Your task to perform on an android device: turn off notifications in google photos Image 0: 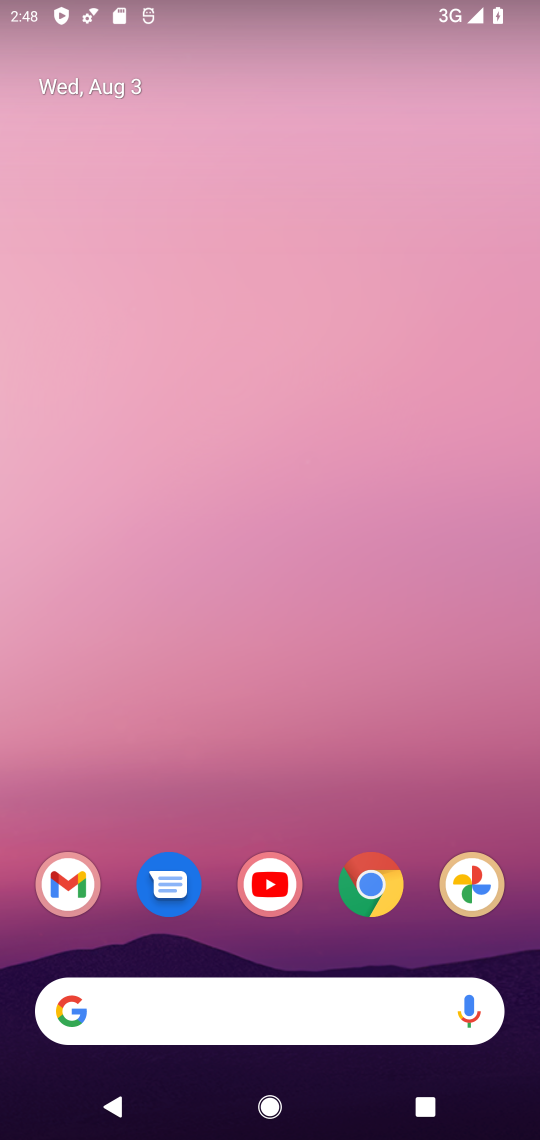
Step 0: click (458, 899)
Your task to perform on an android device: turn off notifications in google photos Image 1: 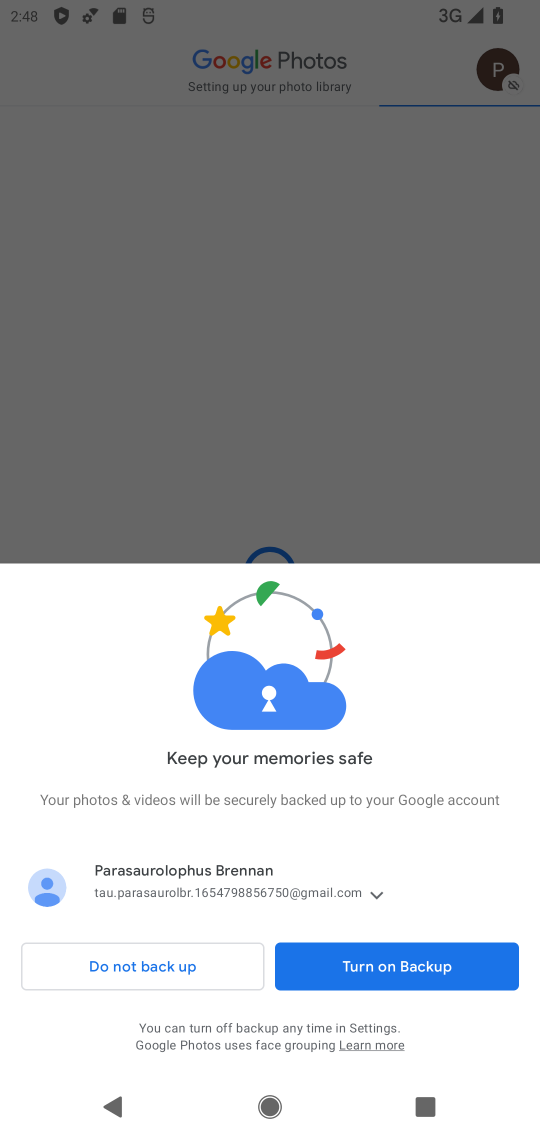
Step 1: click (304, 979)
Your task to perform on an android device: turn off notifications in google photos Image 2: 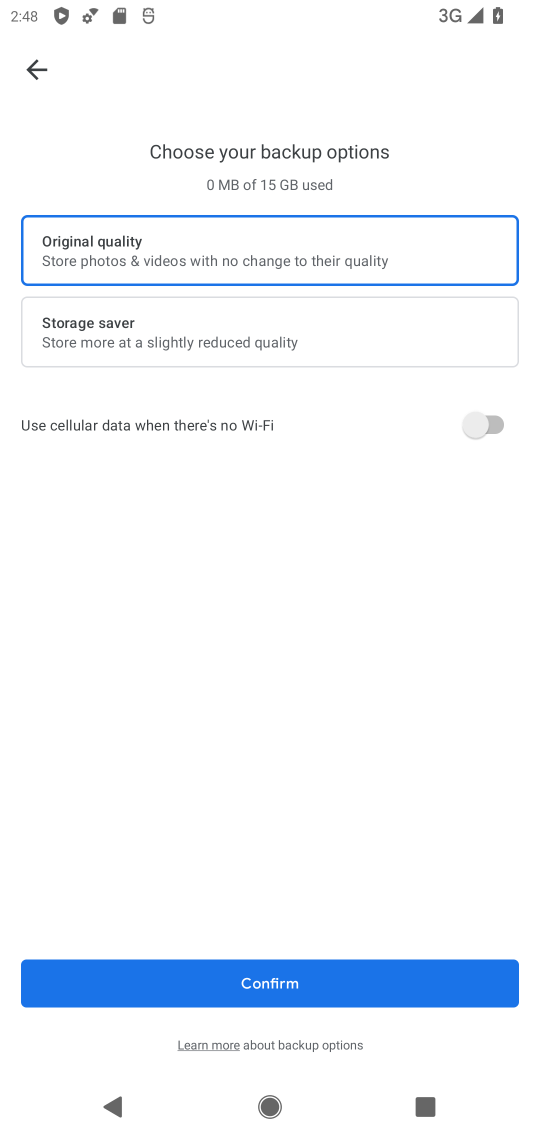
Step 2: click (304, 979)
Your task to perform on an android device: turn off notifications in google photos Image 3: 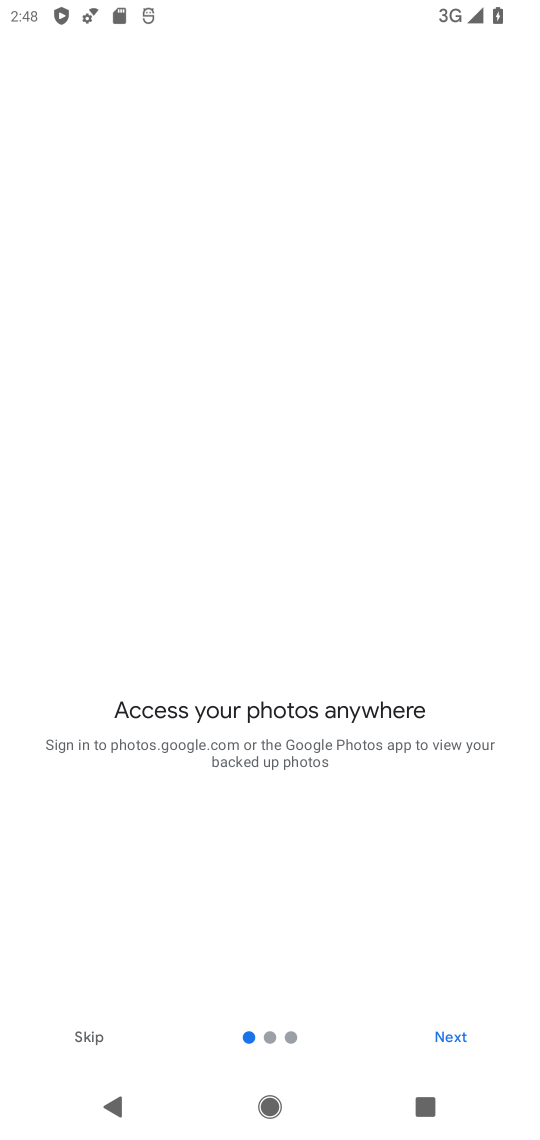
Step 3: click (304, 979)
Your task to perform on an android device: turn off notifications in google photos Image 4: 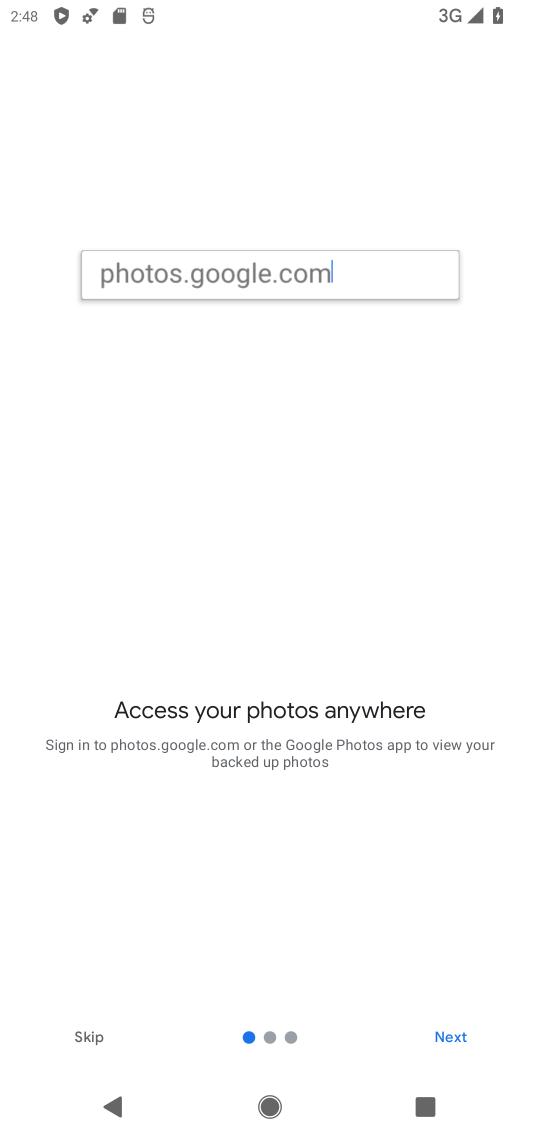
Step 4: click (448, 1048)
Your task to perform on an android device: turn off notifications in google photos Image 5: 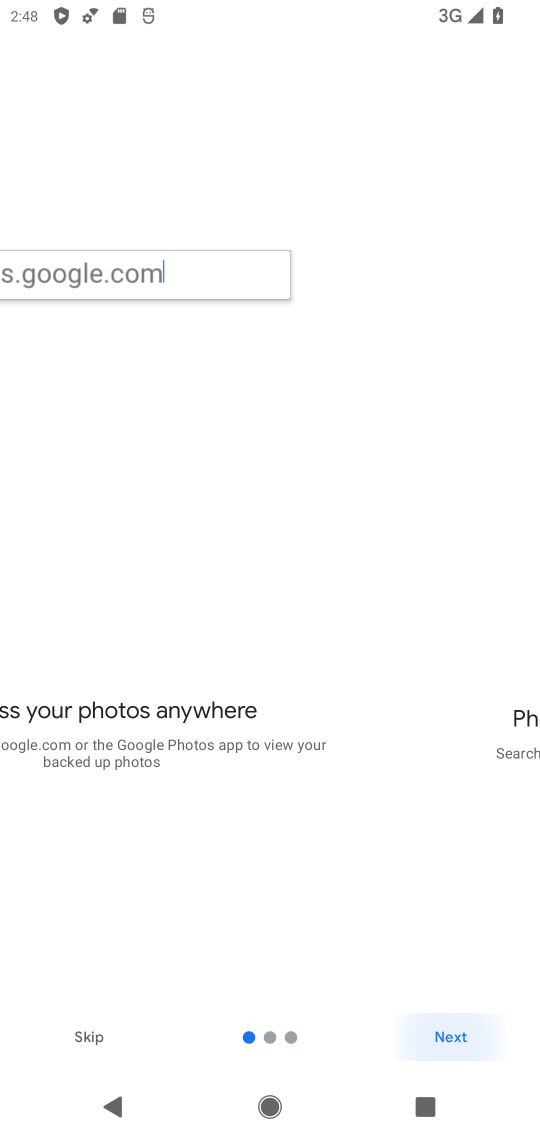
Step 5: click (448, 1048)
Your task to perform on an android device: turn off notifications in google photos Image 6: 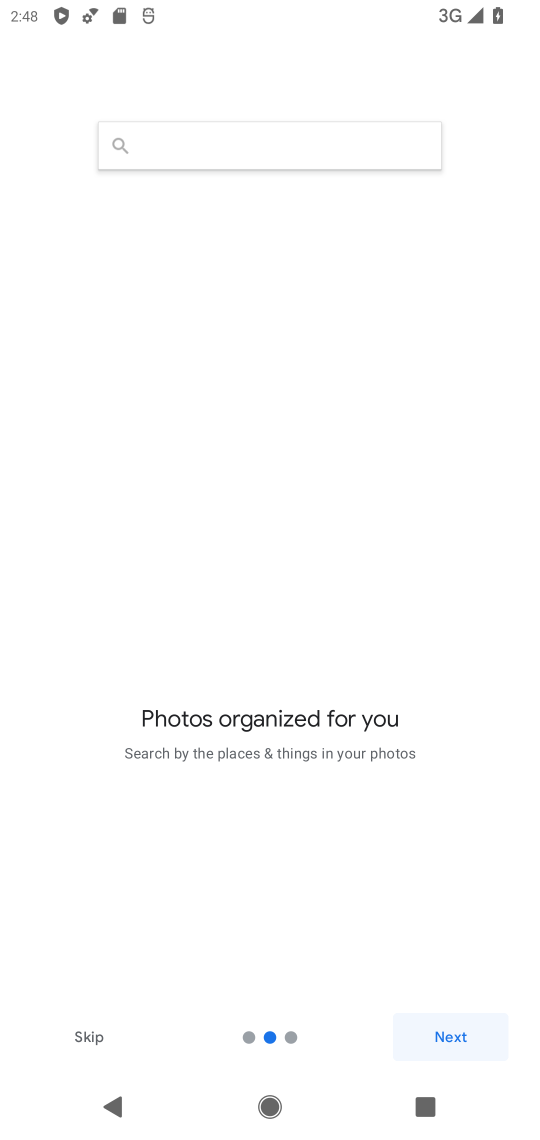
Step 6: click (448, 1048)
Your task to perform on an android device: turn off notifications in google photos Image 7: 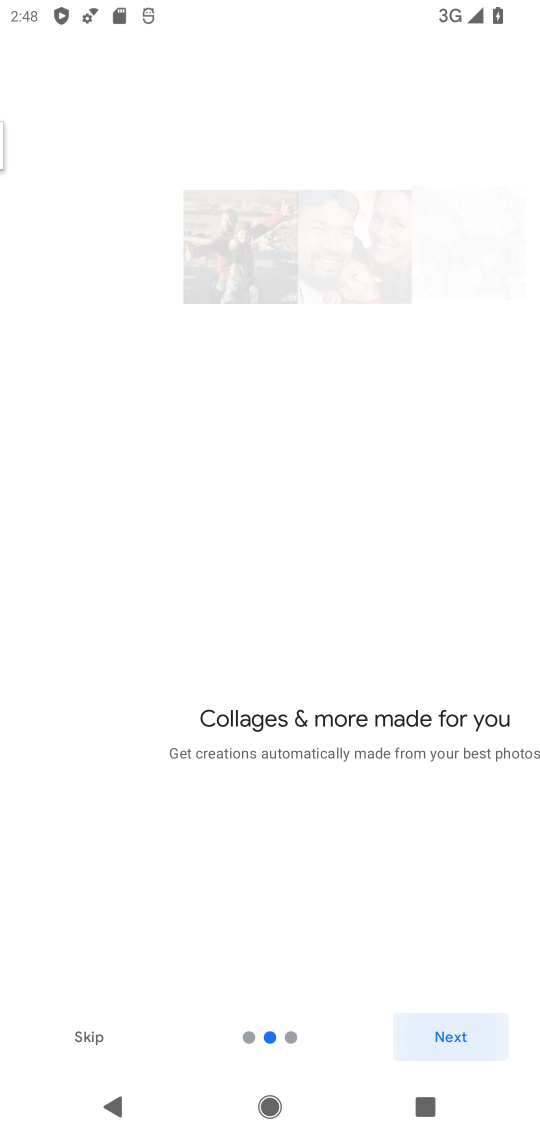
Step 7: click (448, 1048)
Your task to perform on an android device: turn off notifications in google photos Image 8: 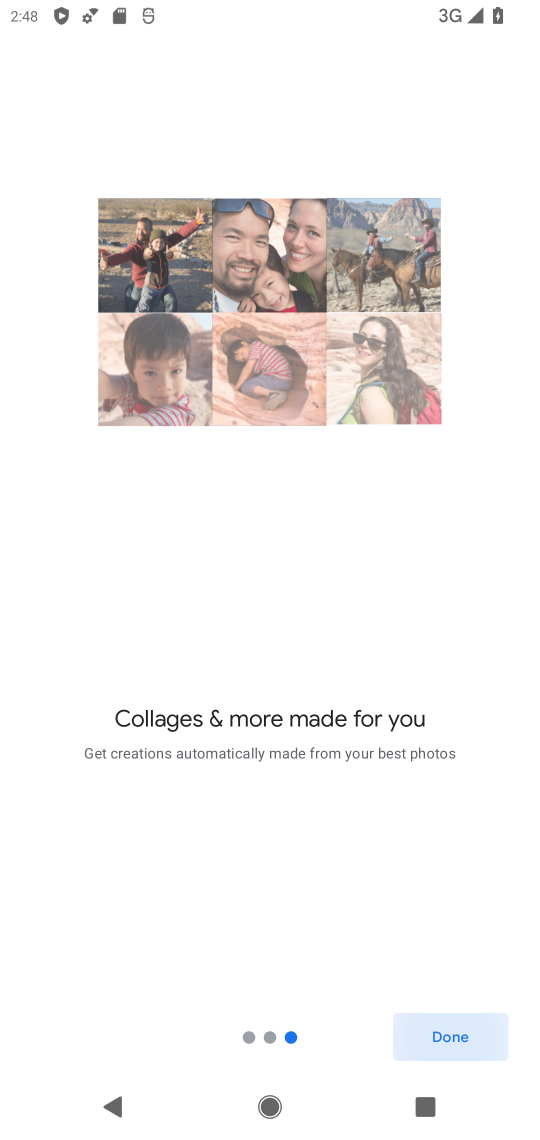
Step 8: click (448, 1048)
Your task to perform on an android device: turn off notifications in google photos Image 9: 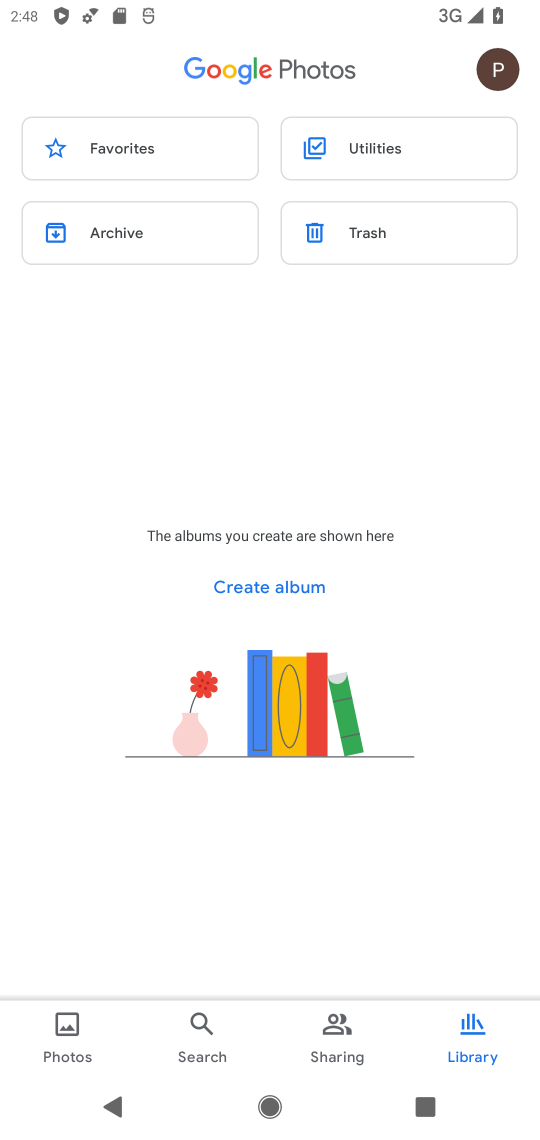
Step 9: click (63, 1037)
Your task to perform on an android device: turn off notifications in google photos Image 10: 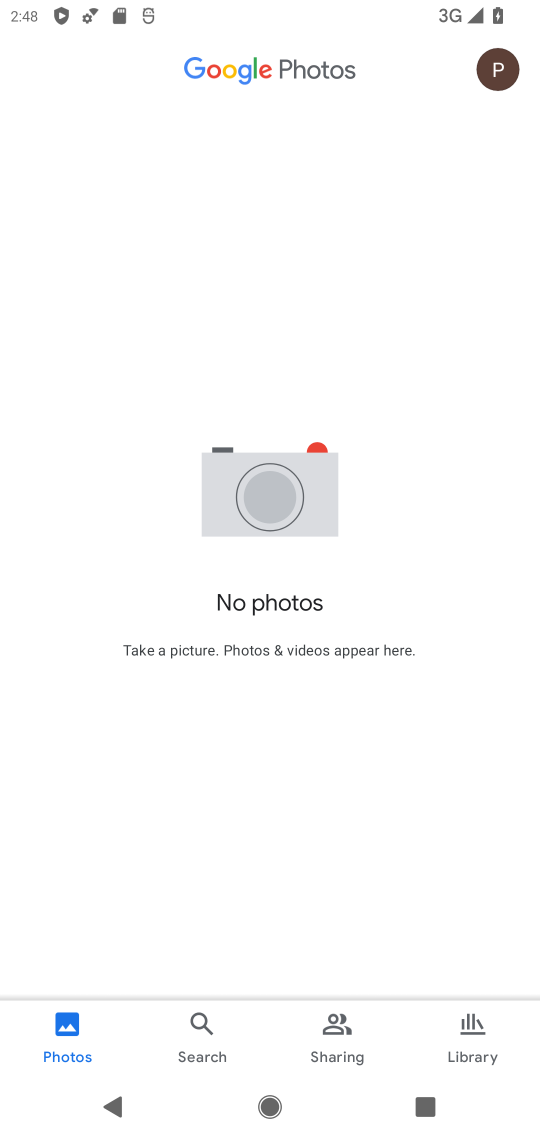
Step 10: click (503, 79)
Your task to perform on an android device: turn off notifications in google photos Image 11: 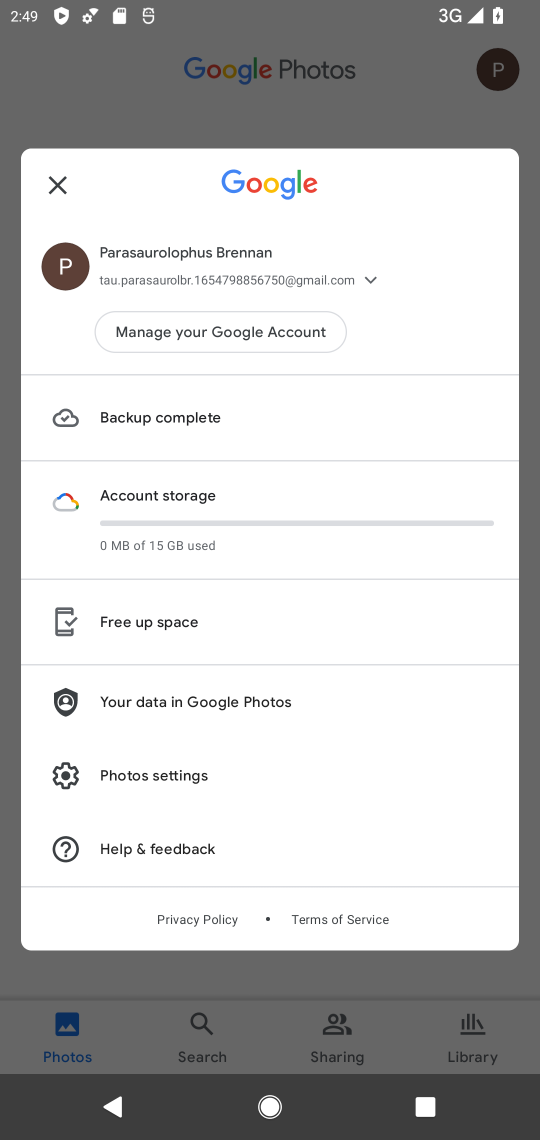
Step 11: click (214, 770)
Your task to perform on an android device: turn off notifications in google photos Image 12: 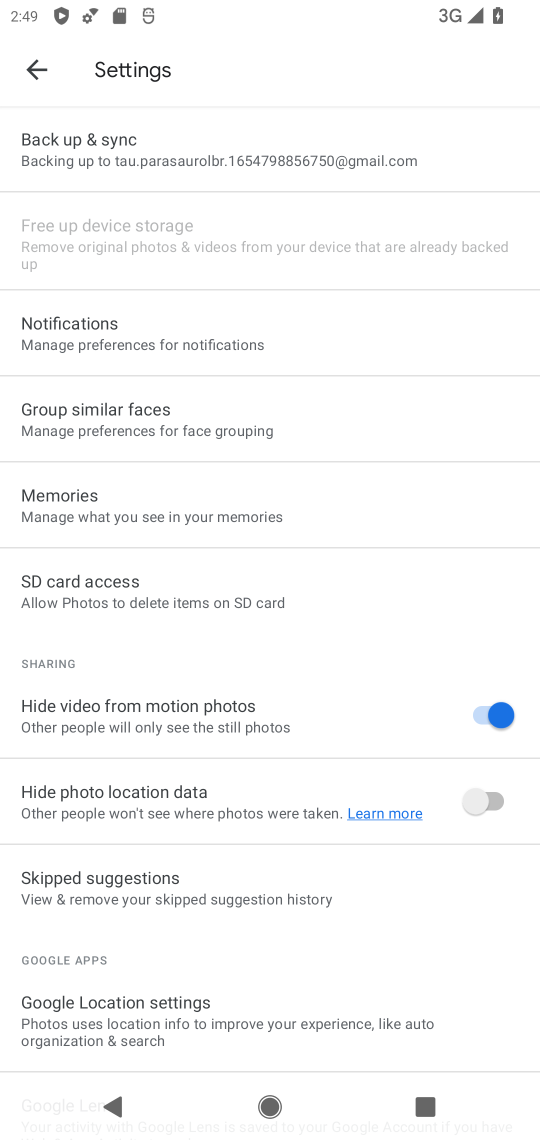
Step 12: click (150, 353)
Your task to perform on an android device: turn off notifications in google photos Image 13: 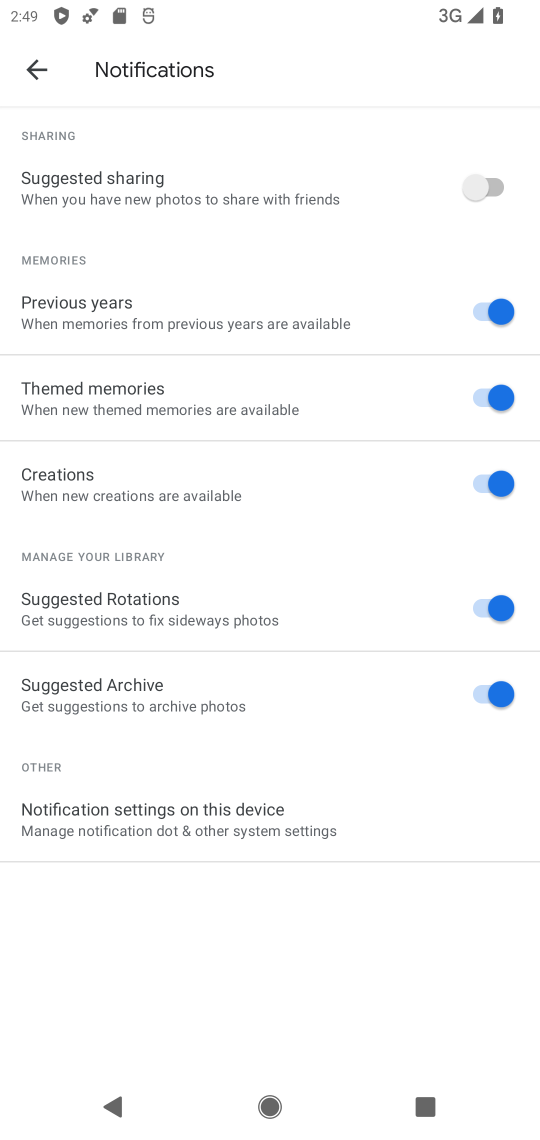
Step 13: task complete